Your task to perform on an android device: turn on the 12-hour format for clock Image 0: 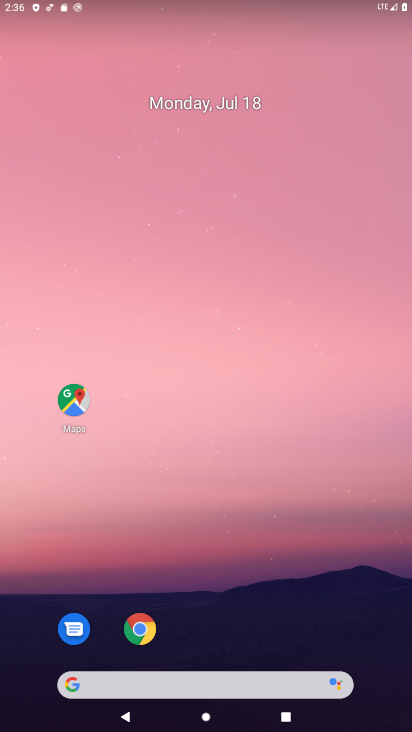
Step 0: drag from (223, 579) to (318, 100)
Your task to perform on an android device: turn on the 12-hour format for clock Image 1: 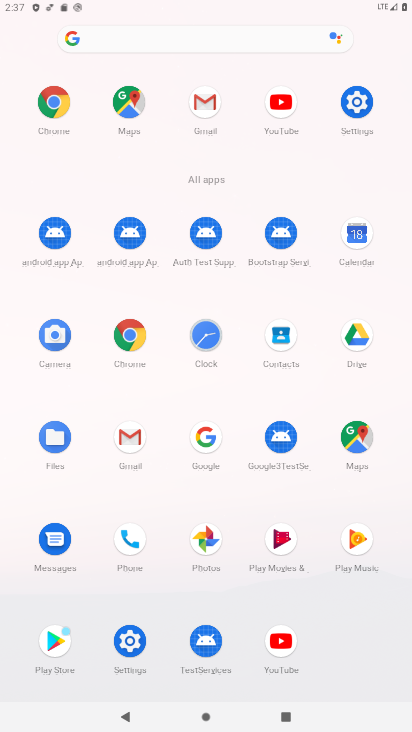
Step 1: click (196, 341)
Your task to perform on an android device: turn on the 12-hour format for clock Image 2: 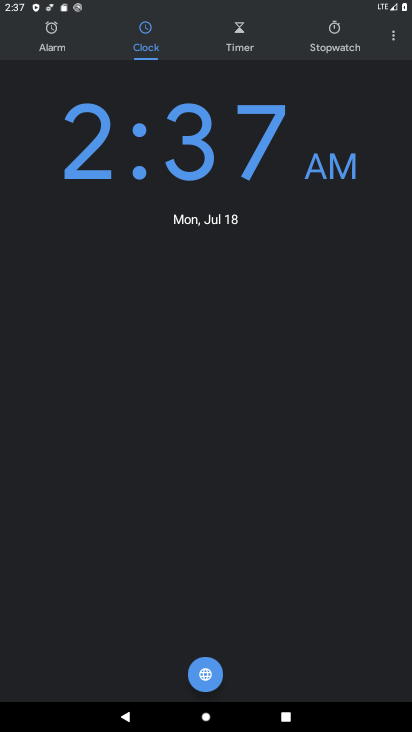
Step 2: click (392, 31)
Your task to perform on an android device: turn on the 12-hour format for clock Image 3: 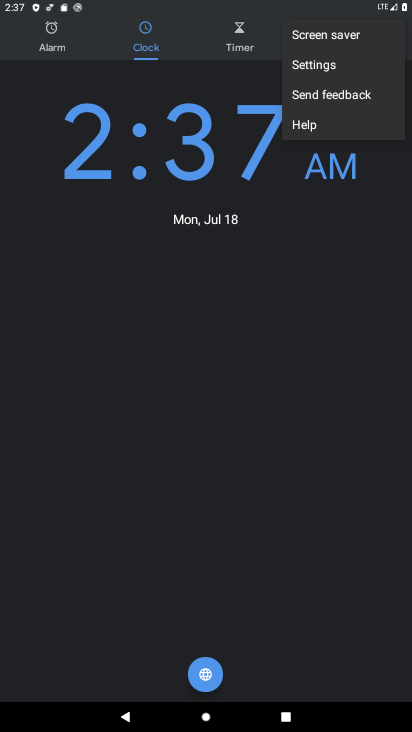
Step 3: click (304, 67)
Your task to perform on an android device: turn on the 12-hour format for clock Image 4: 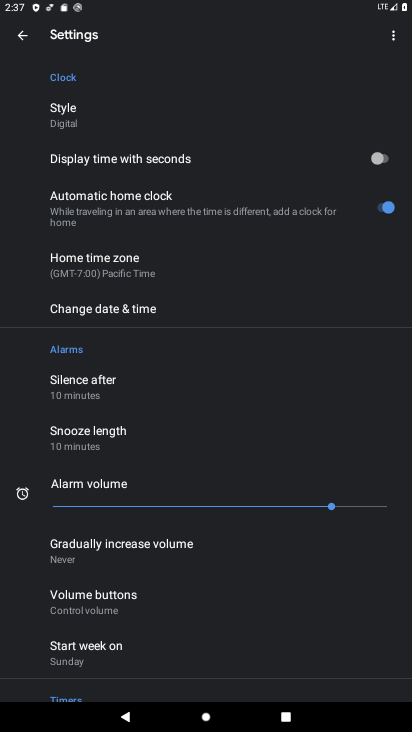
Step 4: click (95, 313)
Your task to perform on an android device: turn on the 12-hour format for clock Image 5: 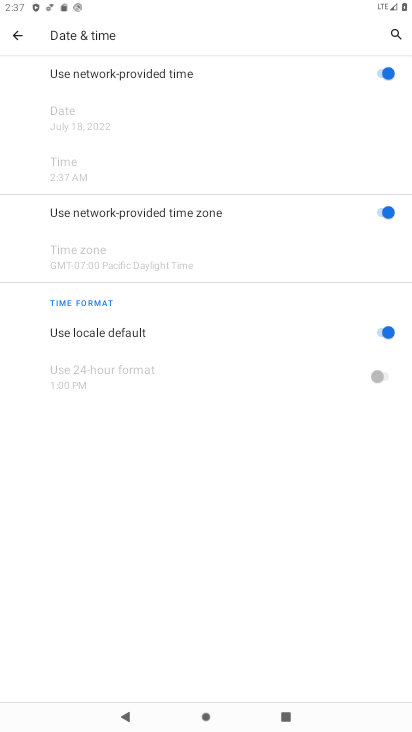
Step 5: task complete